Your task to perform on an android device: What is the recent news? Image 0: 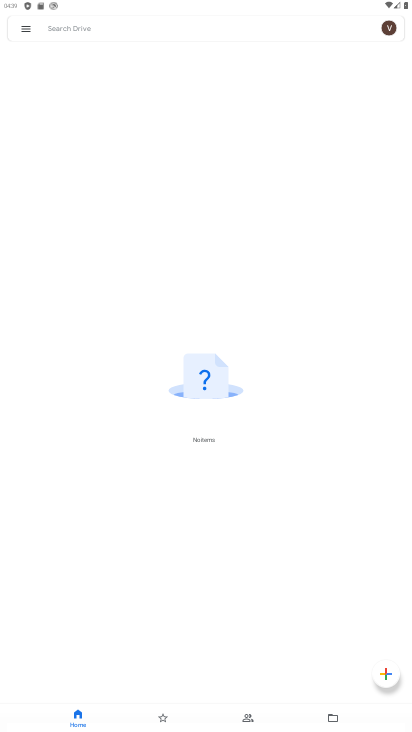
Step 0: press home button
Your task to perform on an android device: What is the recent news? Image 1: 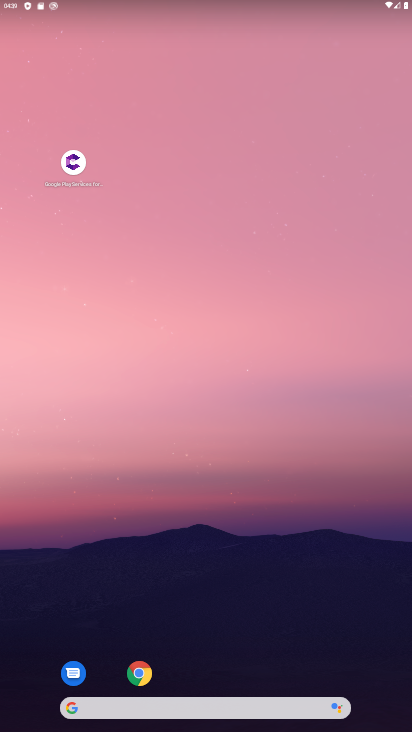
Step 1: drag from (181, 677) to (209, 160)
Your task to perform on an android device: What is the recent news? Image 2: 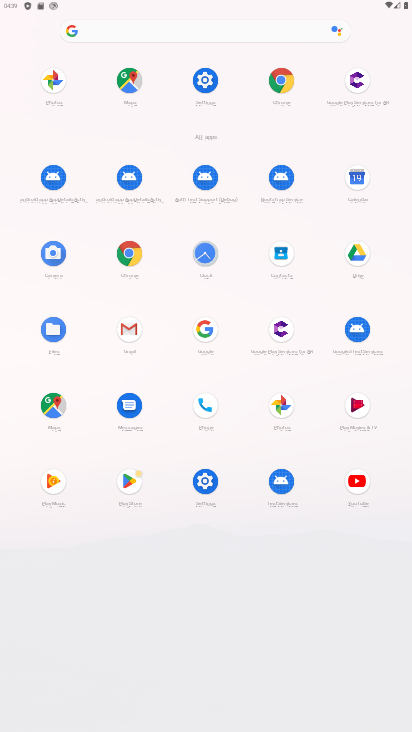
Step 2: click (177, 33)
Your task to perform on an android device: What is the recent news? Image 3: 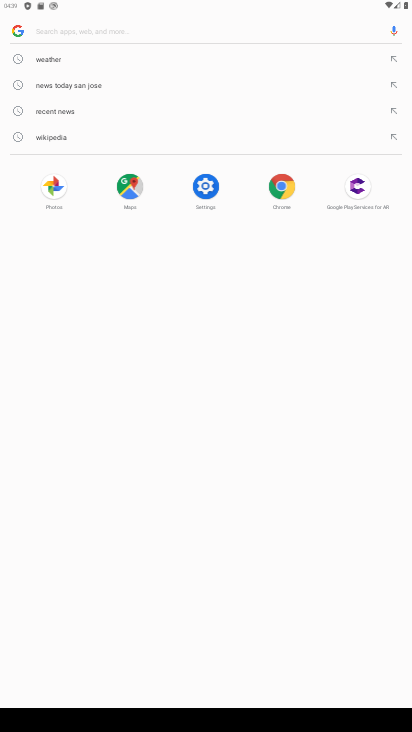
Step 3: click (68, 109)
Your task to perform on an android device: What is the recent news? Image 4: 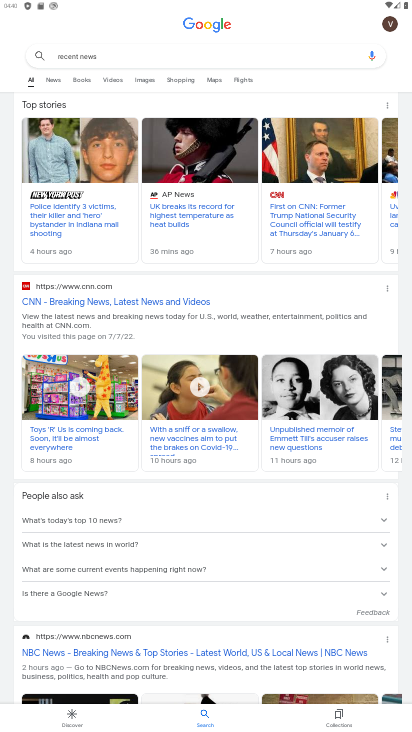
Step 4: task complete